Your task to perform on an android device: Empty the shopping cart on bestbuy.com. Image 0: 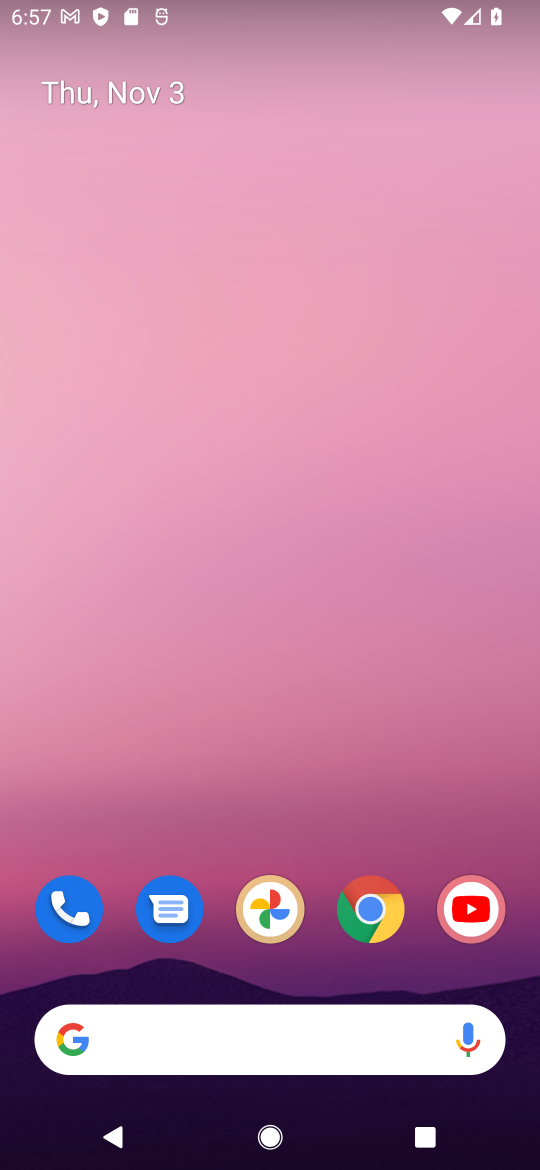
Step 0: drag from (132, 993) to (377, 252)
Your task to perform on an android device: Empty the shopping cart on bestbuy.com. Image 1: 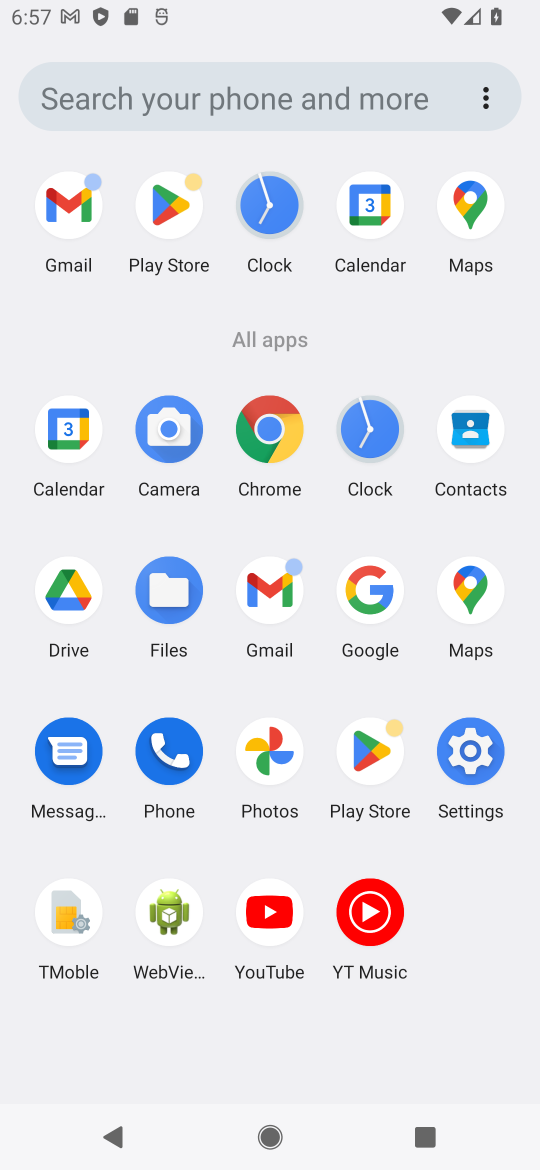
Step 1: click (352, 601)
Your task to perform on an android device: Empty the shopping cart on bestbuy.com. Image 2: 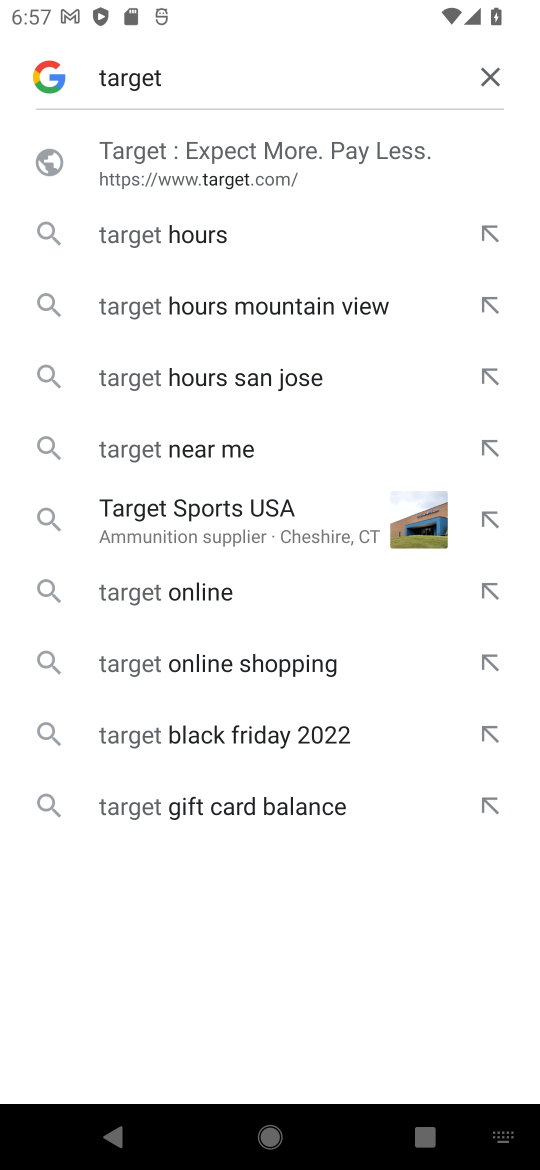
Step 2: click (485, 76)
Your task to perform on an android device: Empty the shopping cart on bestbuy.com. Image 3: 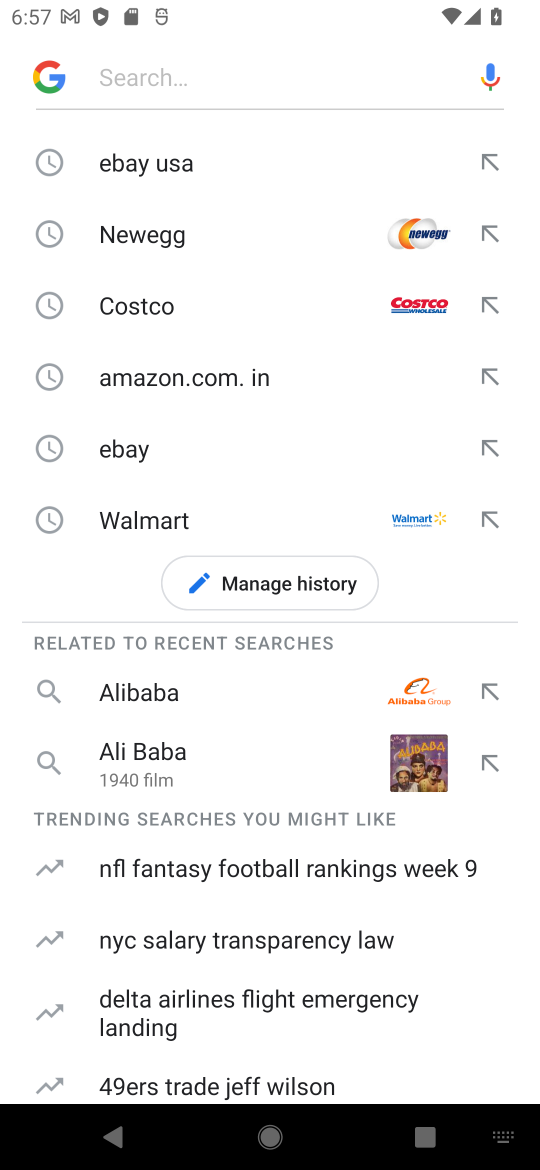
Step 3: click (256, 81)
Your task to perform on an android device: Empty the shopping cart on bestbuy.com. Image 4: 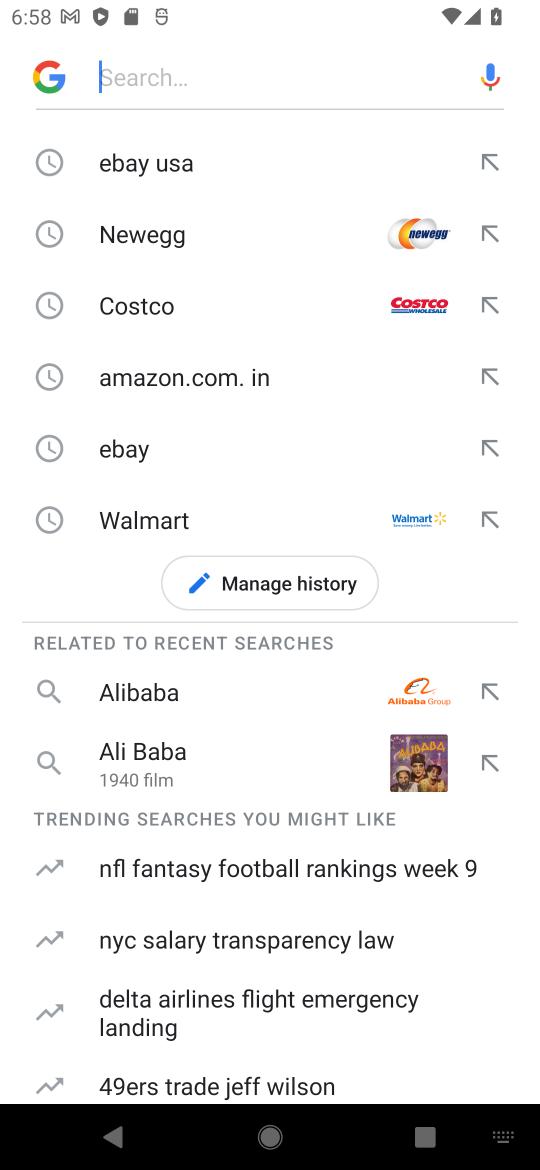
Step 4: type "bestbuy "
Your task to perform on an android device: Empty the shopping cart on bestbuy.com. Image 5: 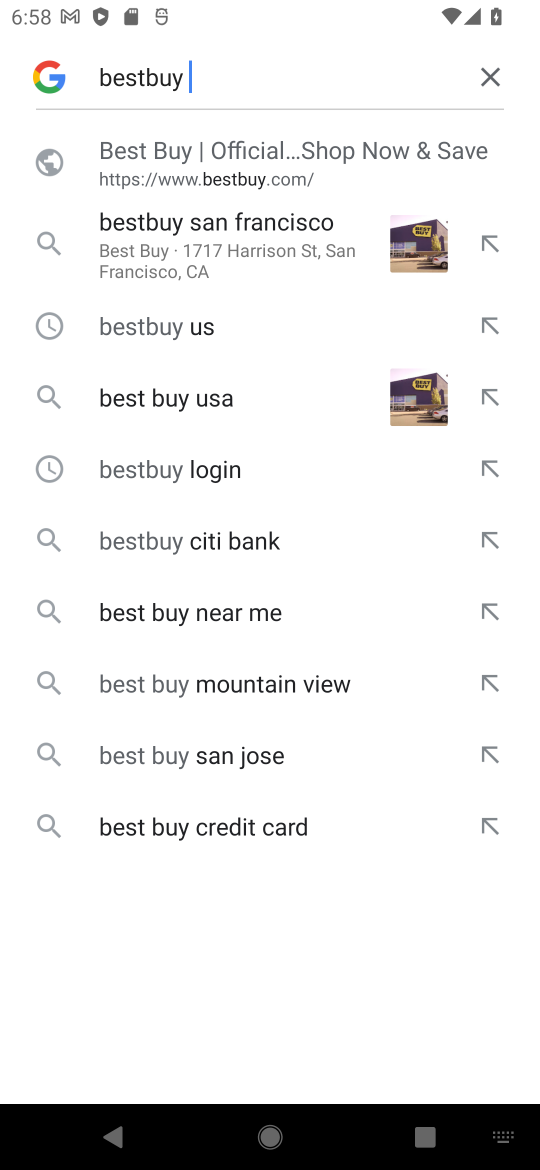
Step 5: click (265, 128)
Your task to perform on an android device: Empty the shopping cart on bestbuy.com. Image 6: 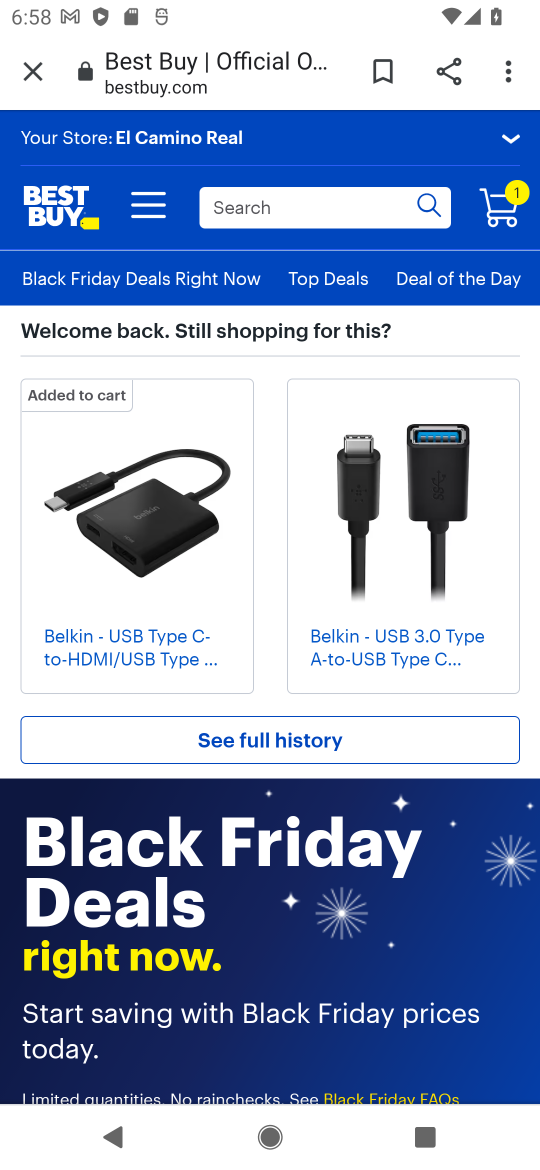
Step 6: click (497, 194)
Your task to perform on an android device: Empty the shopping cart on bestbuy.com. Image 7: 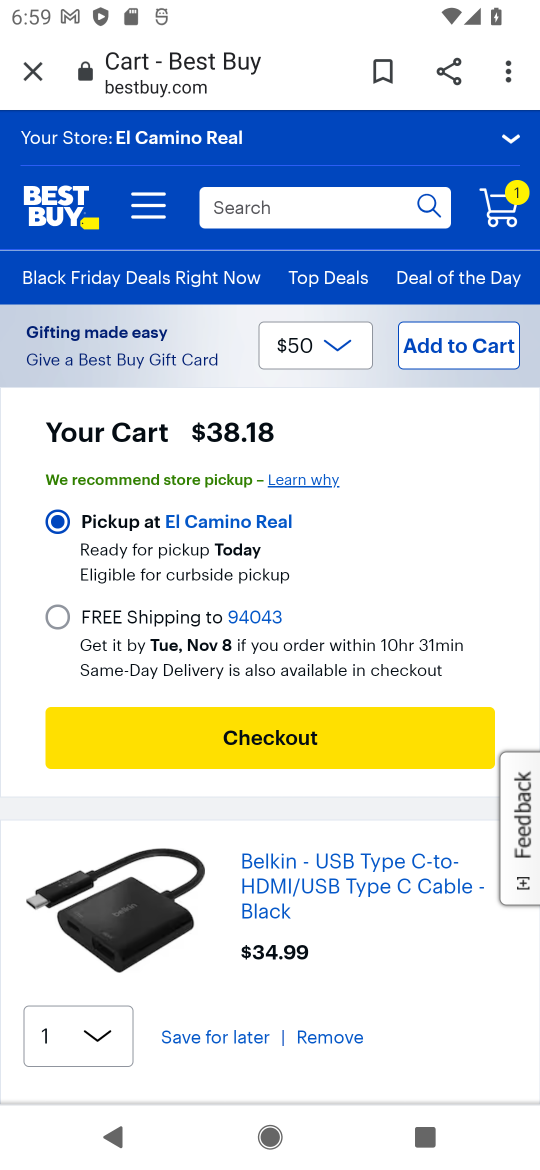
Step 7: drag from (250, 962) to (276, 484)
Your task to perform on an android device: Empty the shopping cart on bestbuy.com. Image 8: 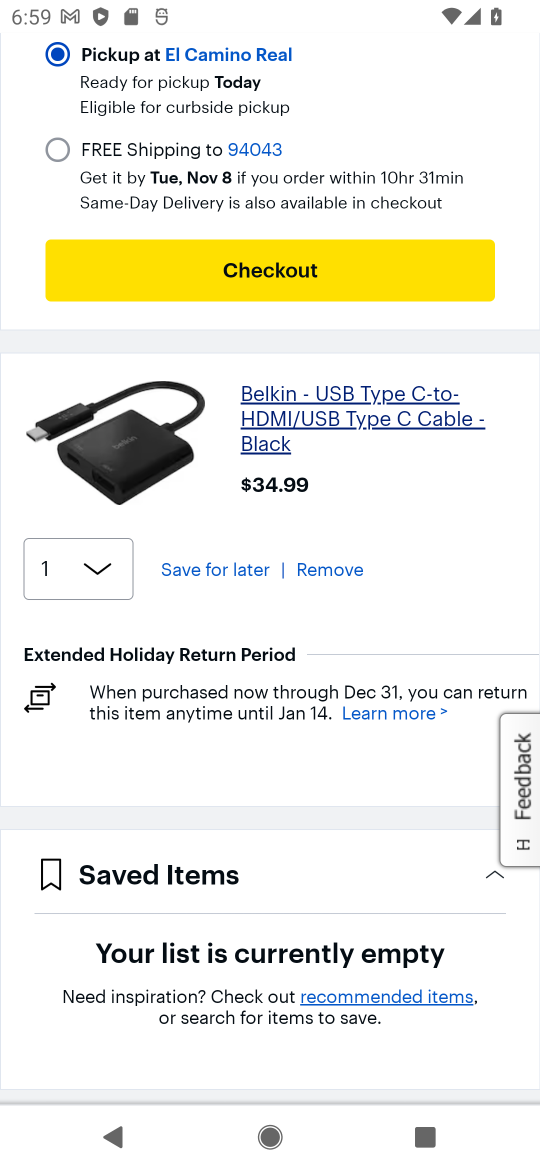
Step 8: click (319, 575)
Your task to perform on an android device: Empty the shopping cart on bestbuy.com. Image 9: 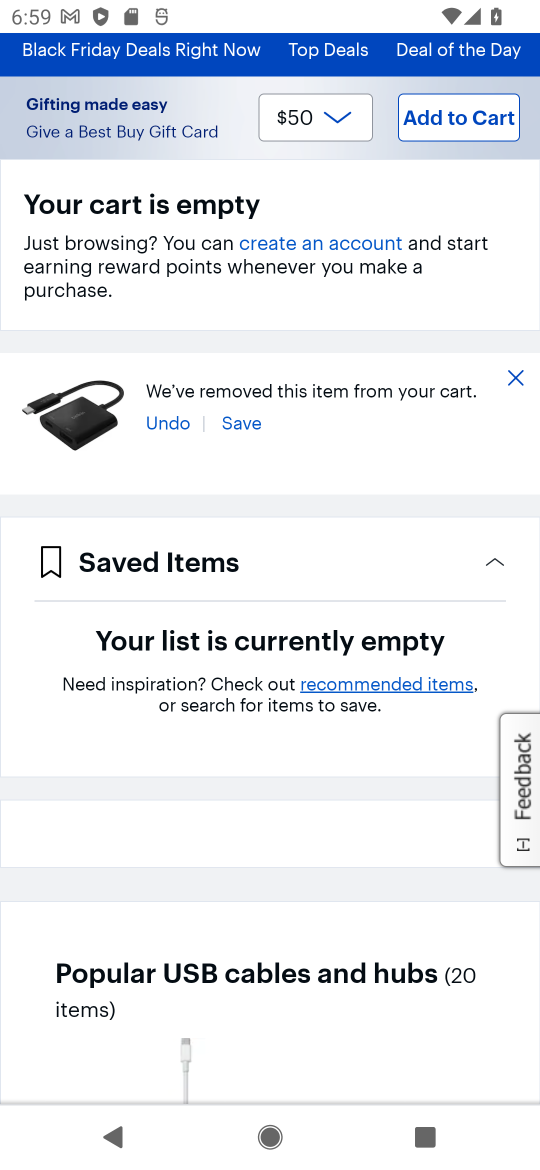
Step 9: click (510, 381)
Your task to perform on an android device: Empty the shopping cart on bestbuy.com. Image 10: 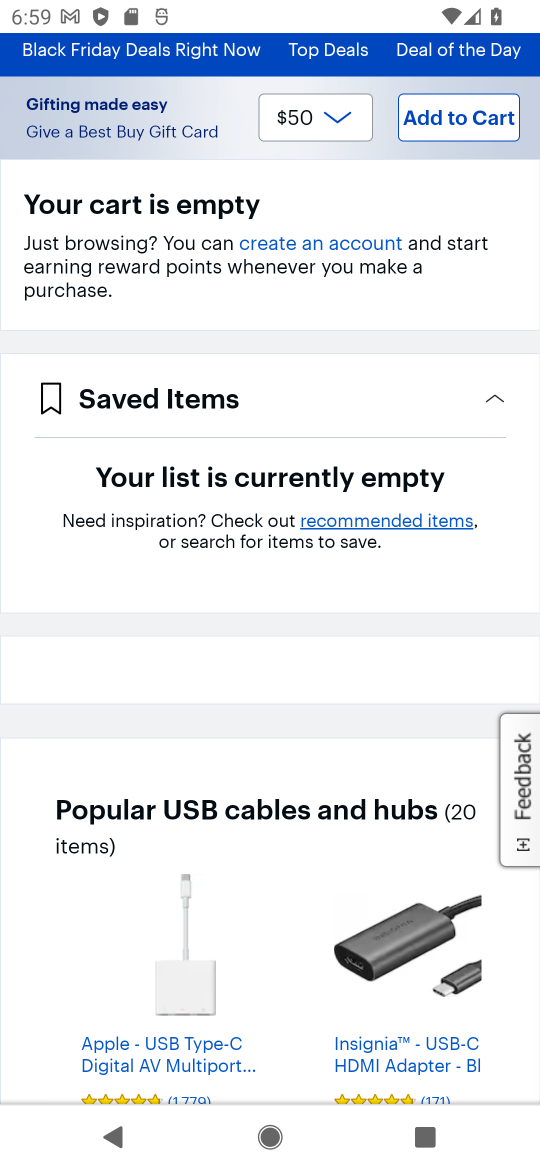
Step 10: task complete